Your task to perform on an android device: turn off wifi Image 0: 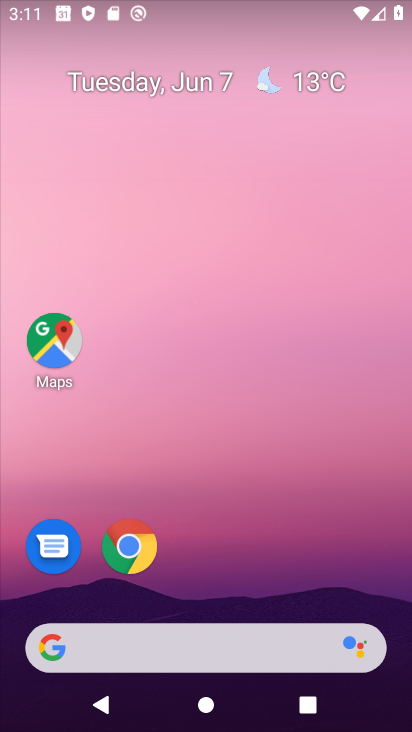
Step 0: drag from (217, 586) to (235, 191)
Your task to perform on an android device: turn off wifi Image 1: 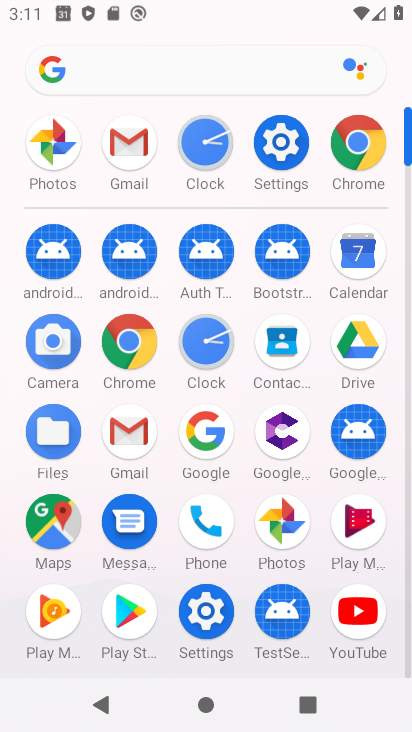
Step 1: click (274, 147)
Your task to perform on an android device: turn off wifi Image 2: 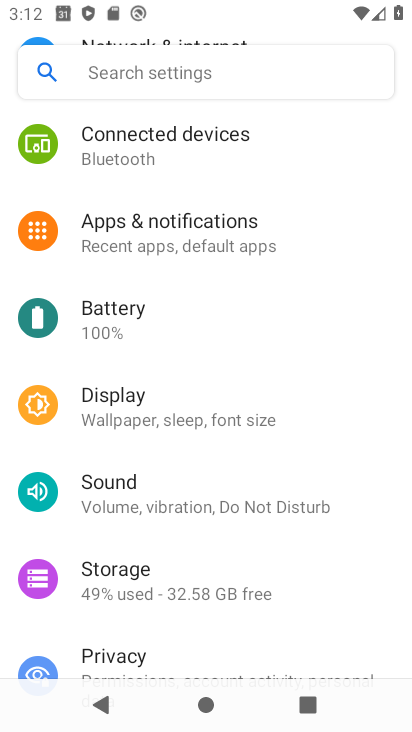
Step 2: drag from (161, 157) to (143, 549)
Your task to perform on an android device: turn off wifi Image 3: 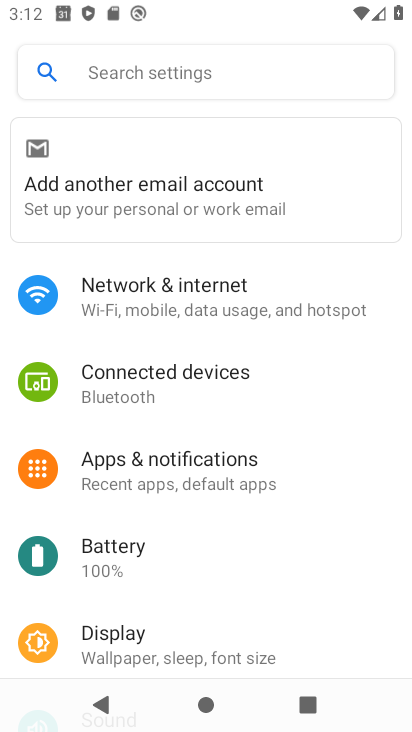
Step 3: click (155, 313)
Your task to perform on an android device: turn off wifi Image 4: 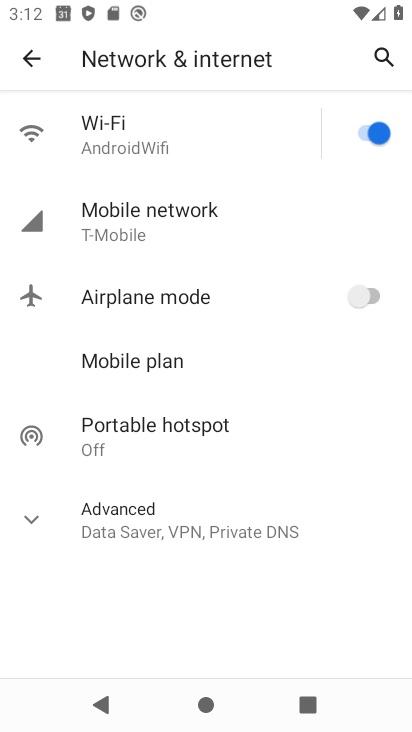
Step 4: click (360, 140)
Your task to perform on an android device: turn off wifi Image 5: 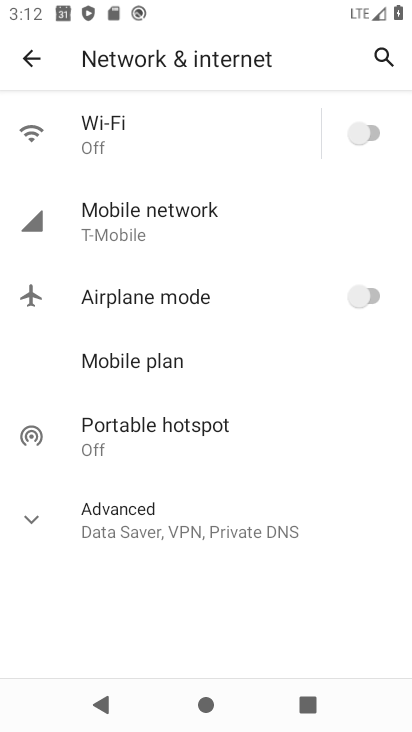
Step 5: task complete